Your task to perform on an android device: Add razer blade to the cart on amazon Image 0: 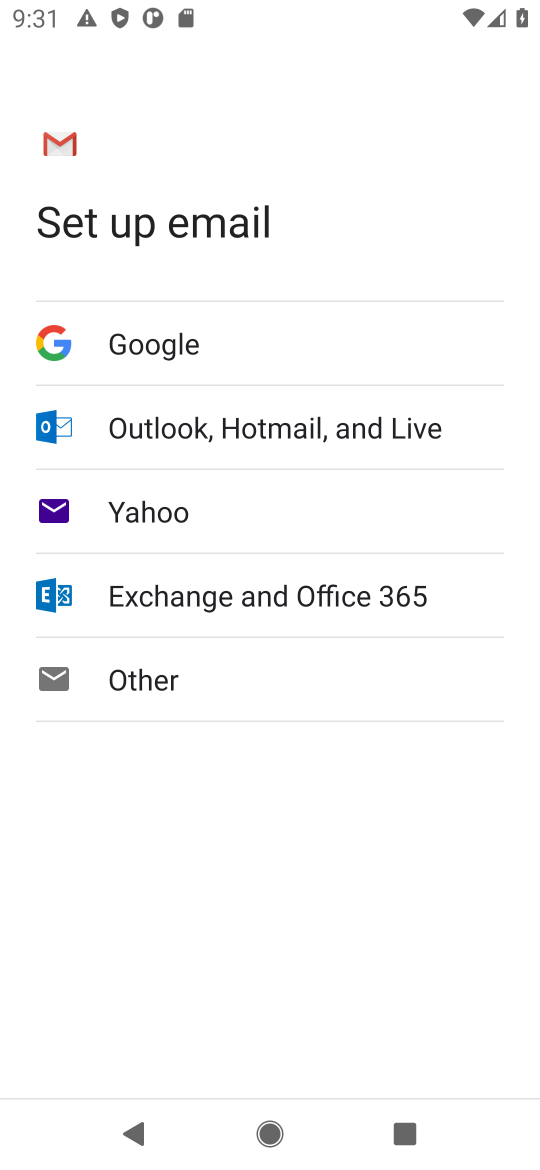
Step 0: press home button
Your task to perform on an android device: Add razer blade to the cart on amazon Image 1: 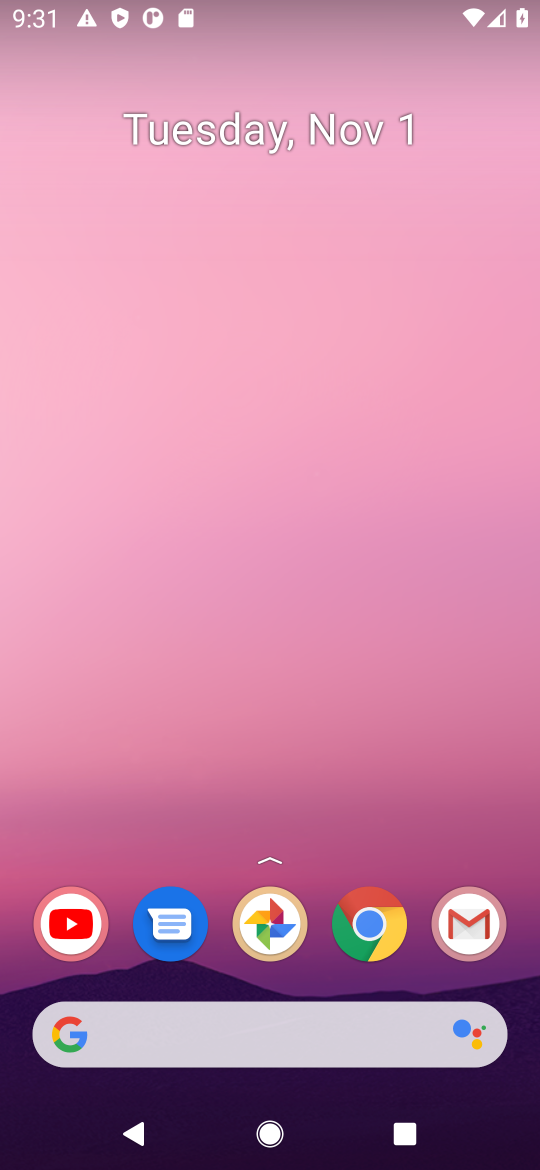
Step 1: click (385, 930)
Your task to perform on an android device: Add razer blade to the cart on amazon Image 2: 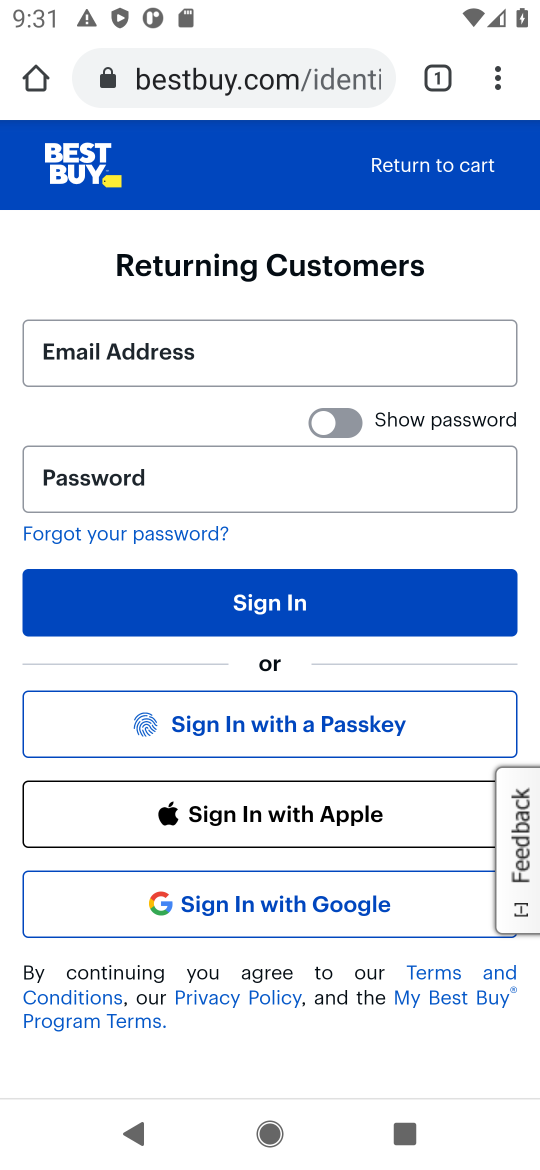
Step 2: click (237, 75)
Your task to perform on an android device: Add razer blade to the cart on amazon Image 3: 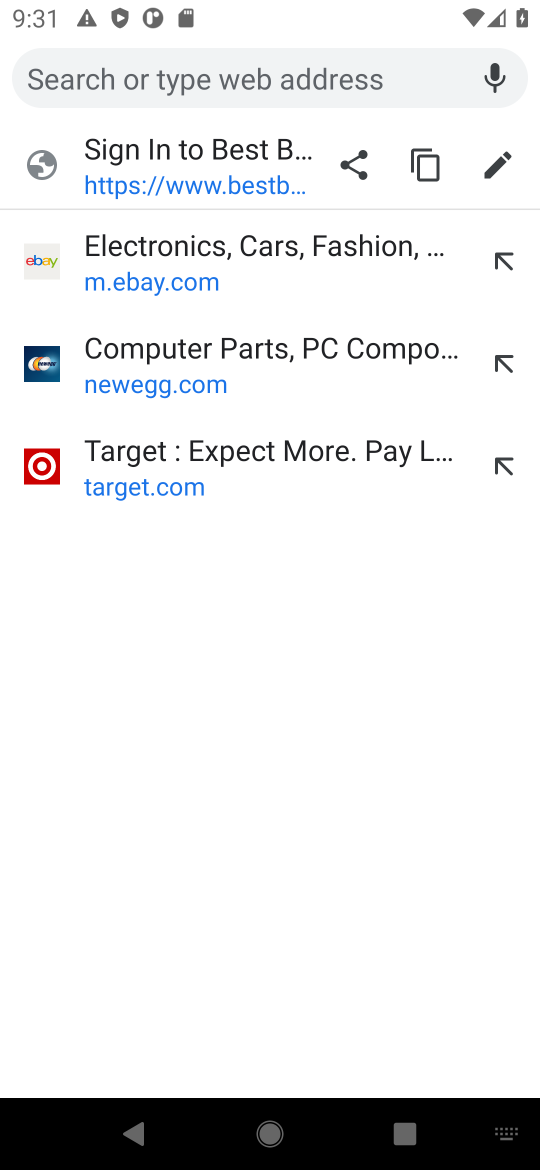
Step 3: type "amazon"
Your task to perform on an android device: Add razer blade to the cart on amazon Image 4: 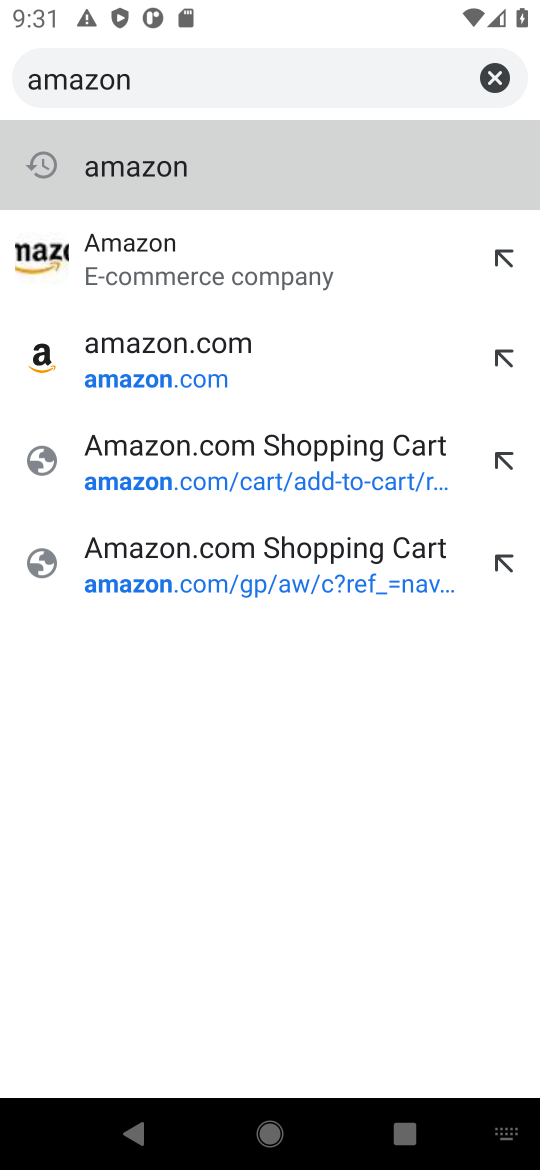
Step 4: click (155, 166)
Your task to perform on an android device: Add razer blade to the cart on amazon Image 5: 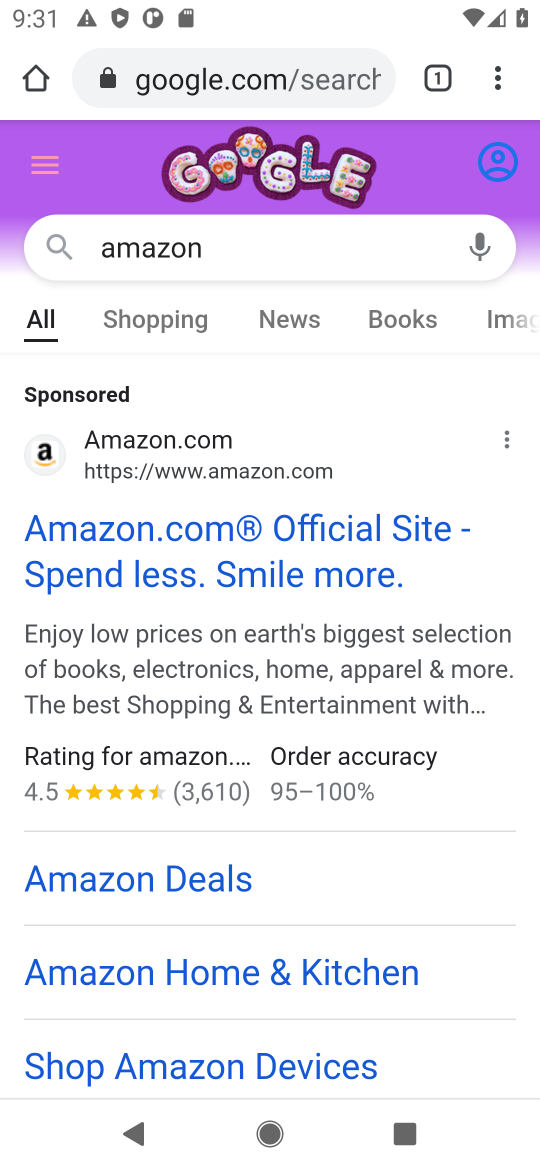
Step 5: click (139, 545)
Your task to perform on an android device: Add razer blade to the cart on amazon Image 6: 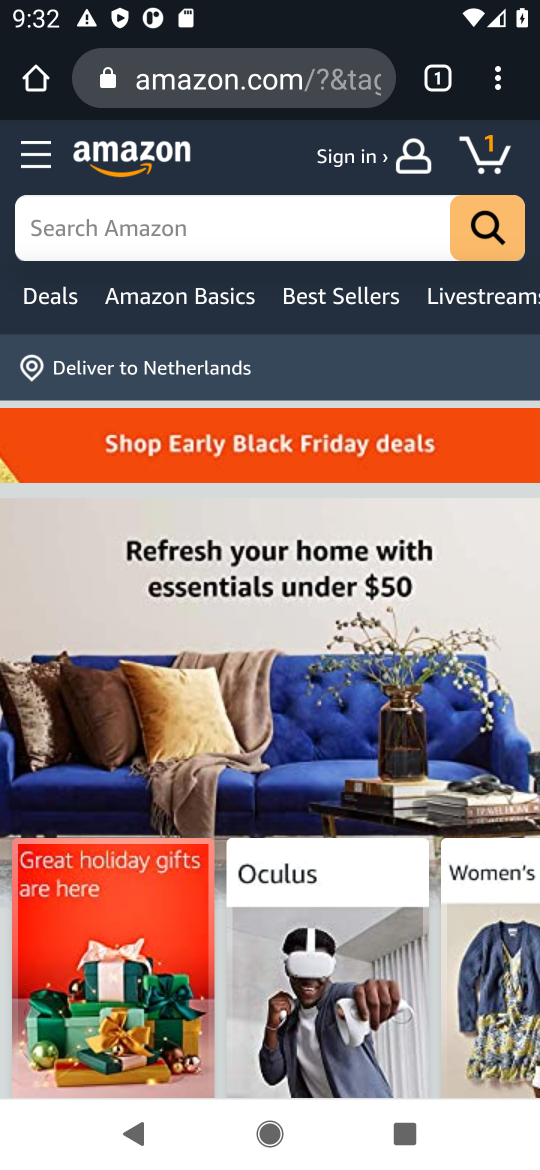
Step 6: click (312, 234)
Your task to perform on an android device: Add razer blade to the cart on amazon Image 7: 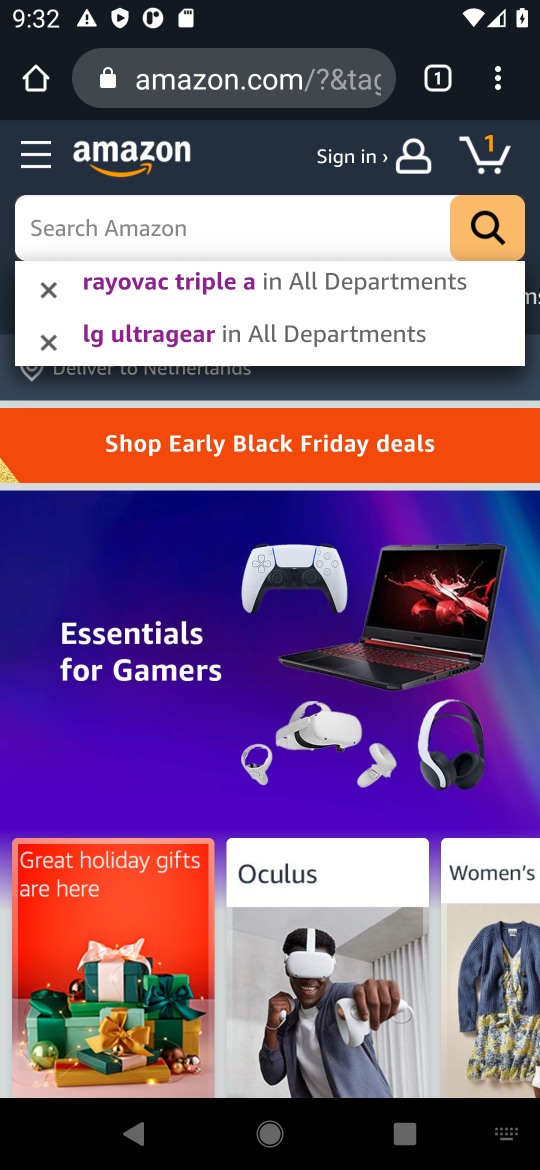
Step 7: type "razer blade"
Your task to perform on an android device: Add razer blade to the cart on amazon Image 8: 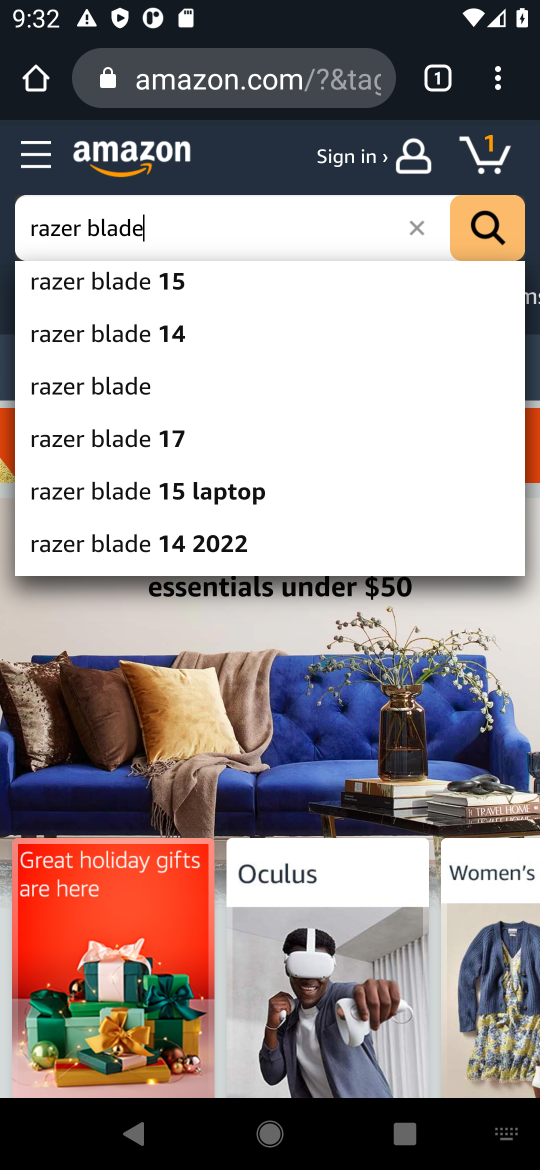
Step 8: press enter
Your task to perform on an android device: Add razer blade to the cart on amazon Image 9: 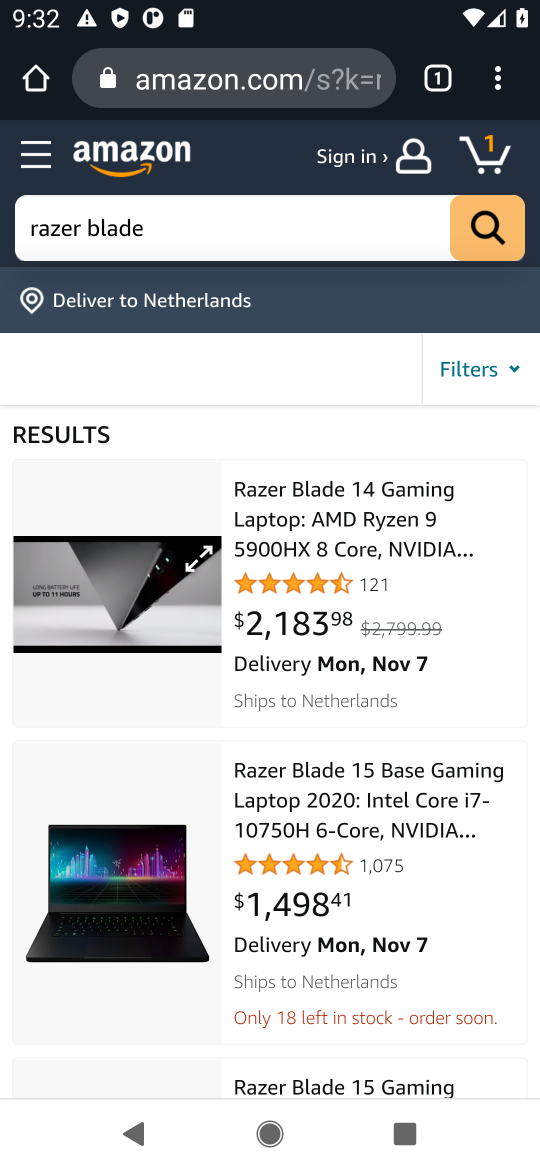
Step 9: click (279, 519)
Your task to perform on an android device: Add razer blade to the cart on amazon Image 10: 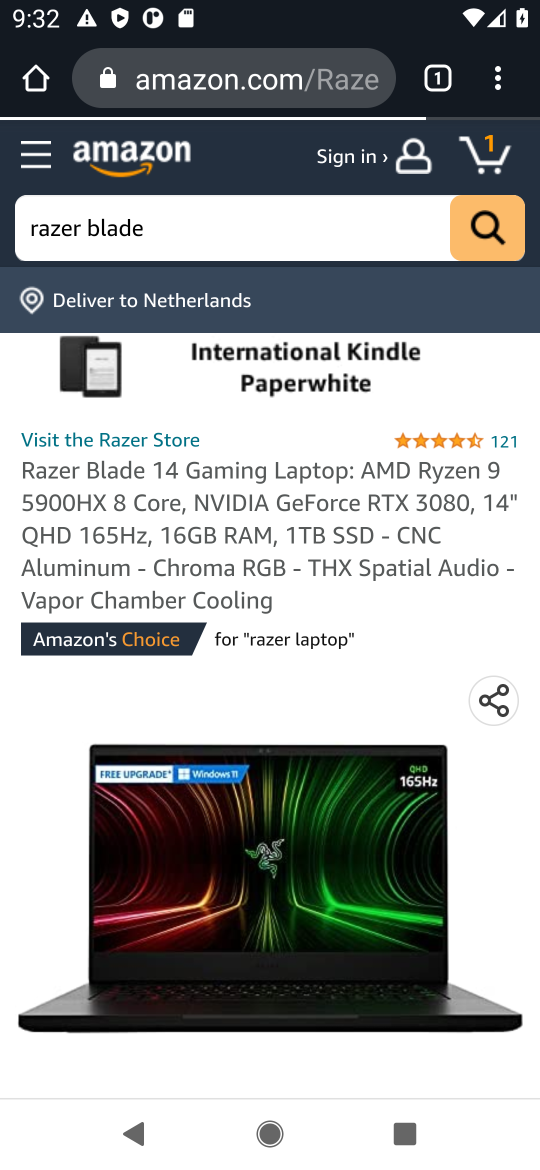
Step 10: drag from (353, 647) to (431, 236)
Your task to perform on an android device: Add razer blade to the cart on amazon Image 11: 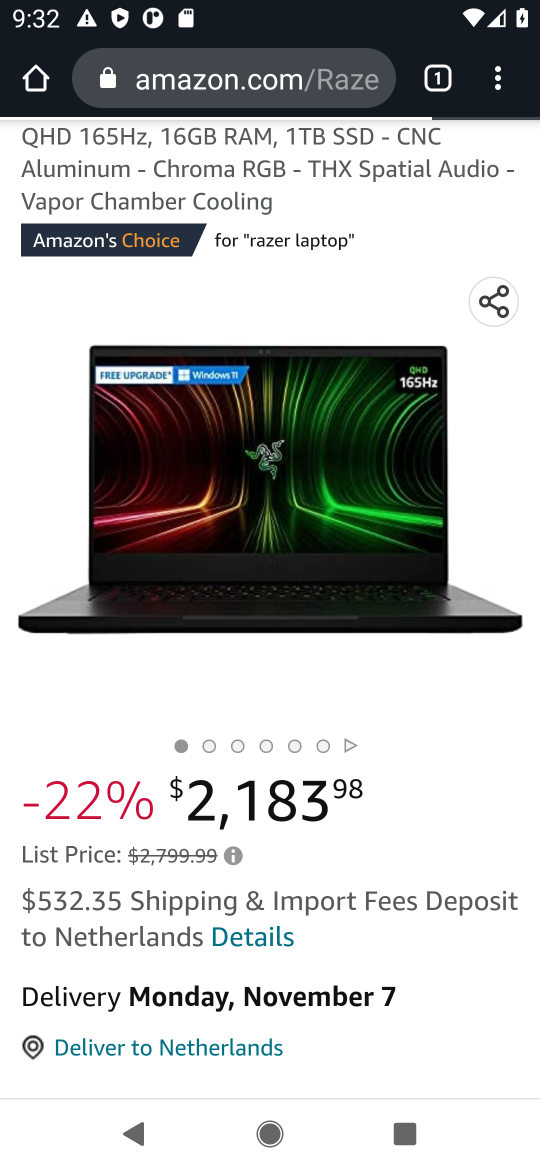
Step 11: drag from (389, 949) to (388, 505)
Your task to perform on an android device: Add razer blade to the cart on amazon Image 12: 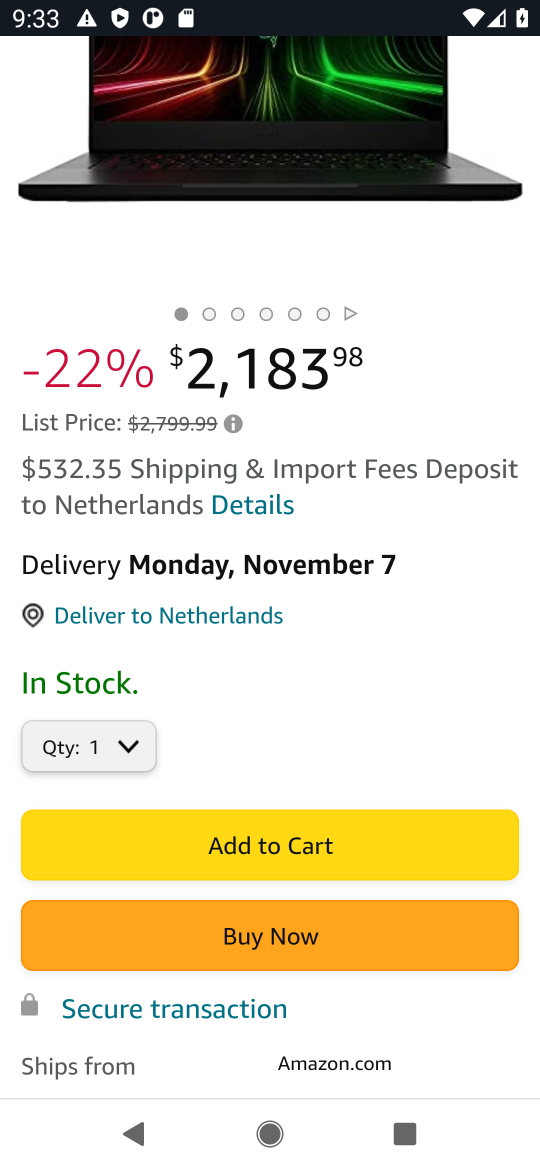
Step 12: click (285, 849)
Your task to perform on an android device: Add razer blade to the cart on amazon Image 13: 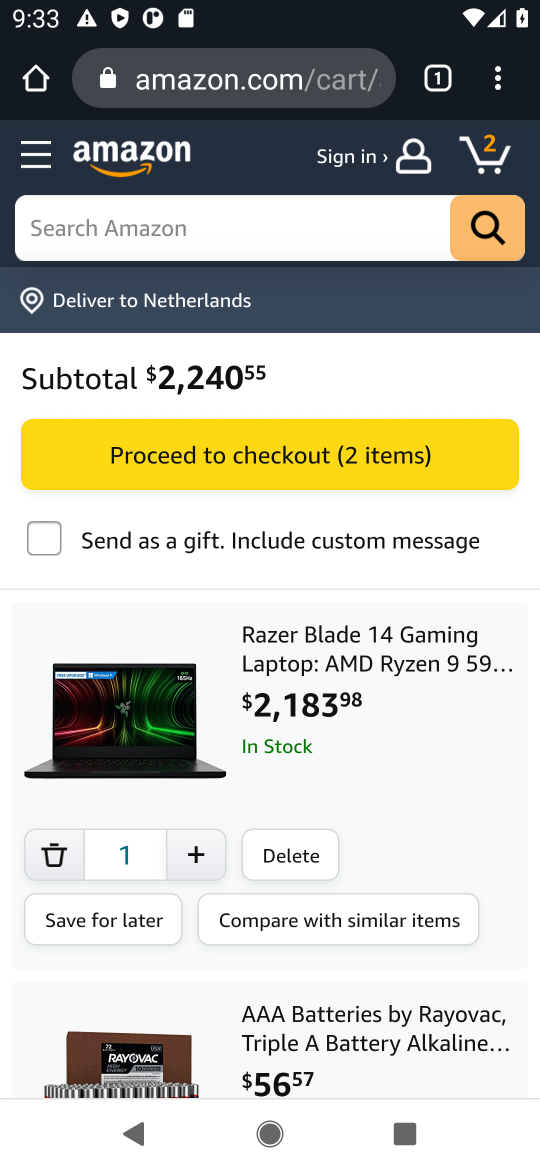
Step 13: task complete